Your task to perform on an android device: change text size in settings app Image 0: 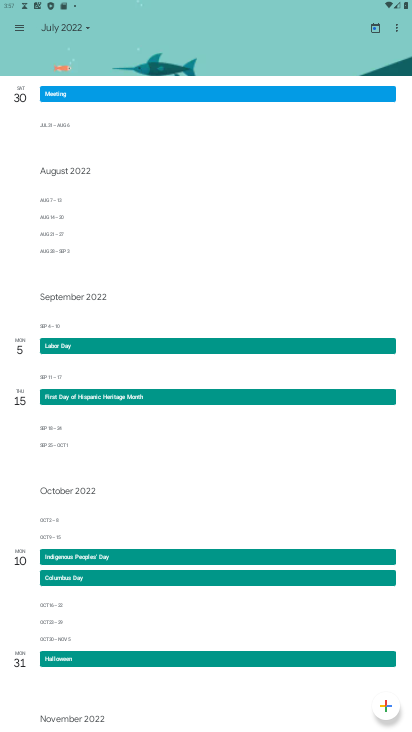
Step 0: press home button
Your task to perform on an android device: change text size in settings app Image 1: 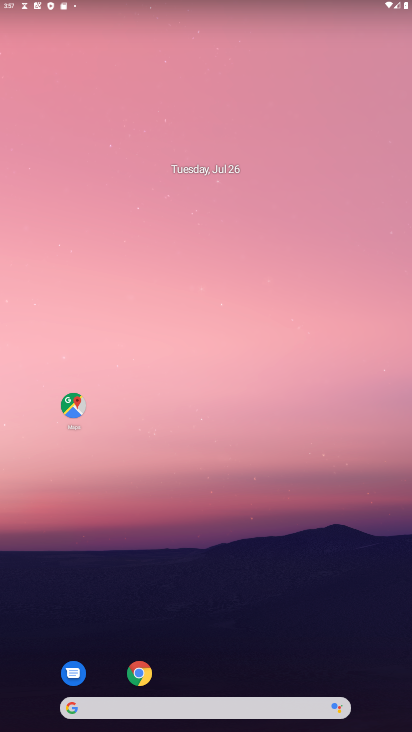
Step 1: drag from (198, 703) to (100, 59)
Your task to perform on an android device: change text size in settings app Image 2: 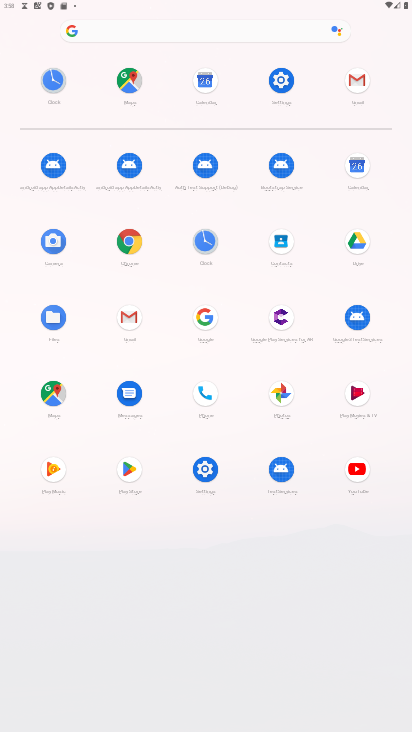
Step 2: click (282, 79)
Your task to perform on an android device: change text size in settings app Image 3: 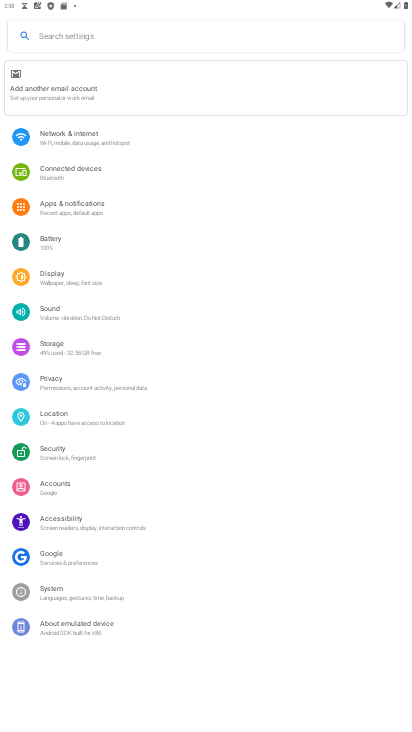
Step 3: click (64, 518)
Your task to perform on an android device: change text size in settings app Image 4: 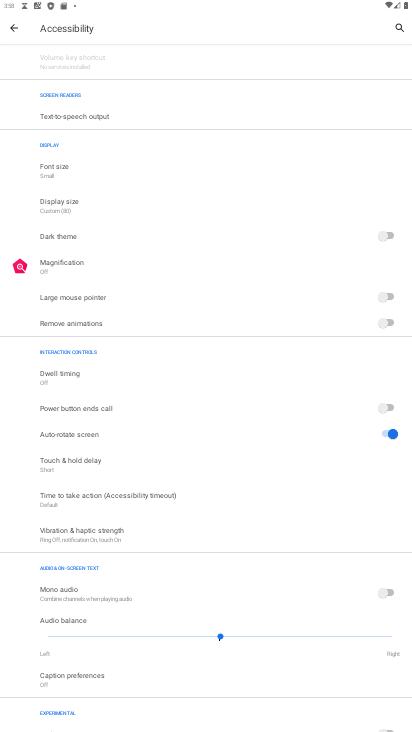
Step 4: click (56, 170)
Your task to perform on an android device: change text size in settings app Image 5: 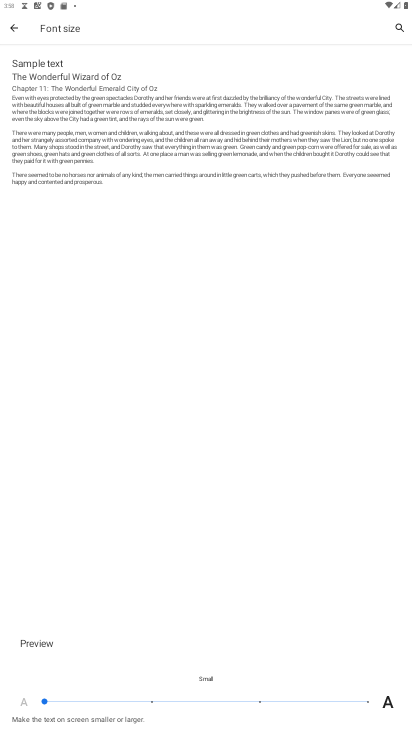
Step 5: click (369, 700)
Your task to perform on an android device: change text size in settings app Image 6: 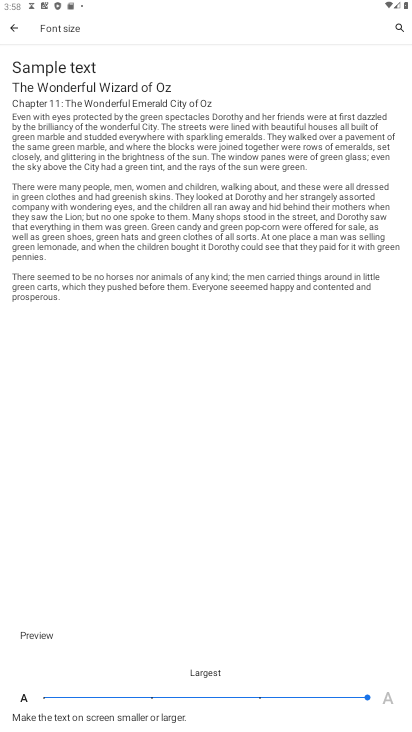
Step 6: task complete